Your task to perform on an android device: toggle airplane mode Image 0: 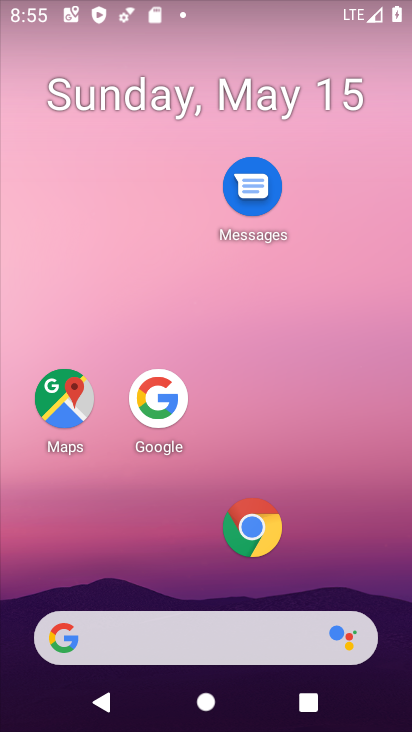
Step 0: press home button
Your task to perform on an android device: toggle airplane mode Image 1: 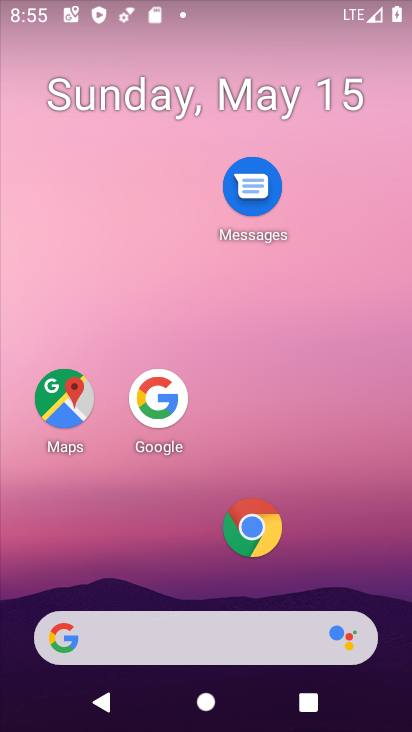
Step 1: drag from (208, 626) to (347, 93)
Your task to perform on an android device: toggle airplane mode Image 2: 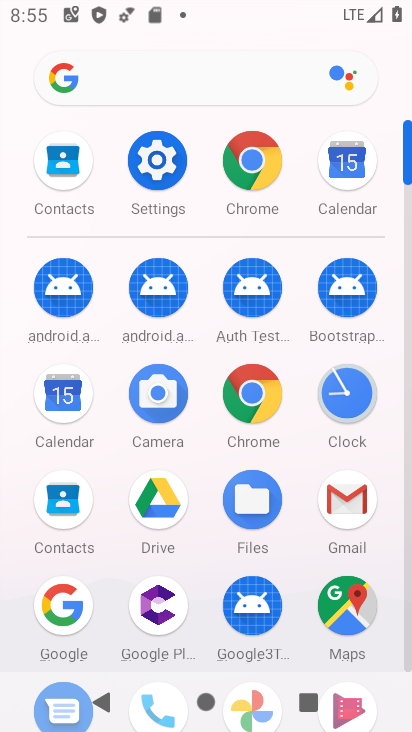
Step 2: click (160, 170)
Your task to perform on an android device: toggle airplane mode Image 3: 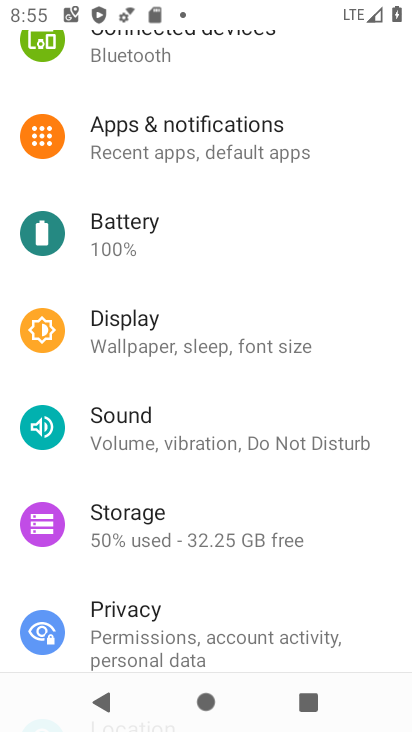
Step 3: drag from (242, 107) to (189, 521)
Your task to perform on an android device: toggle airplane mode Image 4: 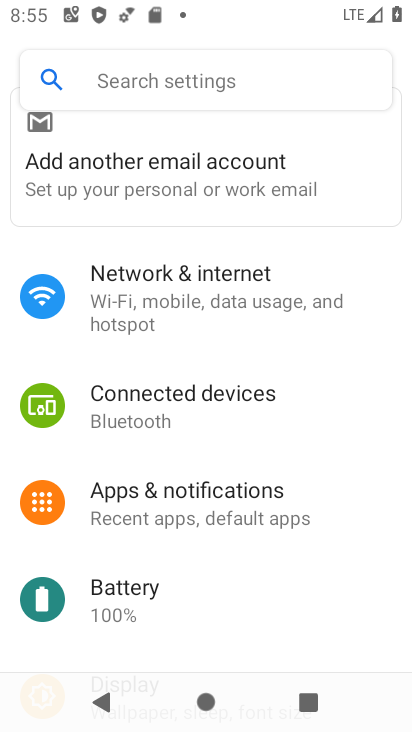
Step 4: click (214, 277)
Your task to perform on an android device: toggle airplane mode Image 5: 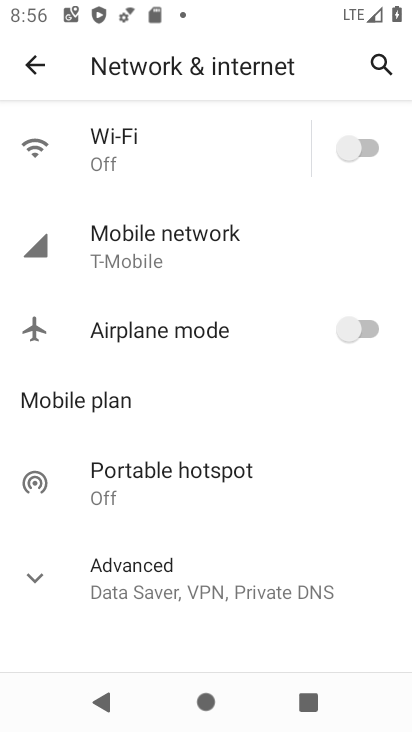
Step 5: click (368, 328)
Your task to perform on an android device: toggle airplane mode Image 6: 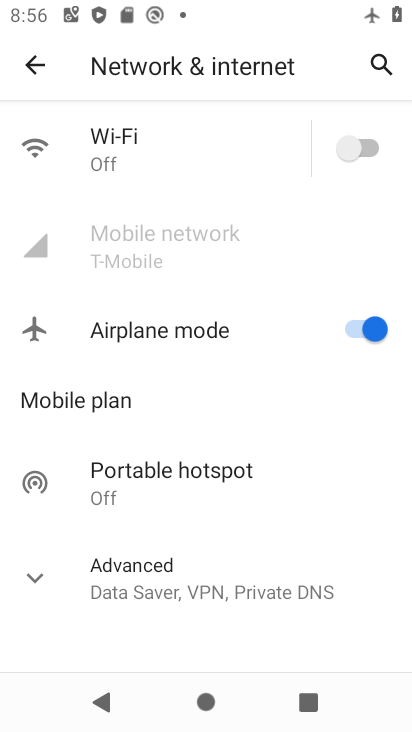
Step 6: task complete